Your task to perform on an android device: create a new album in the google photos Image 0: 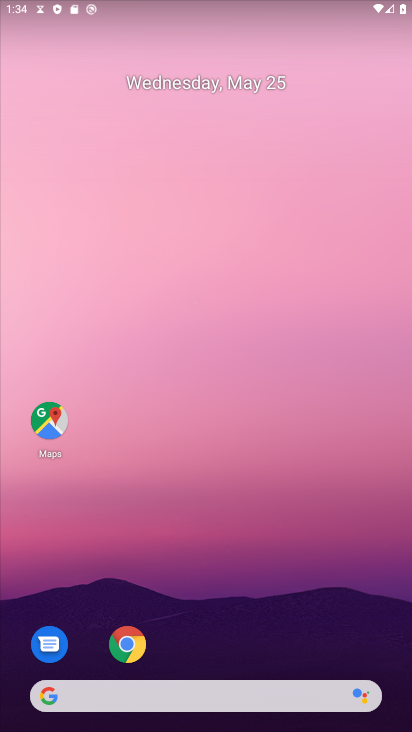
Step 0: drag from (213, 669) to (178, 10)
Your task to perform on an android device: create a new album in the google photos Image 1: 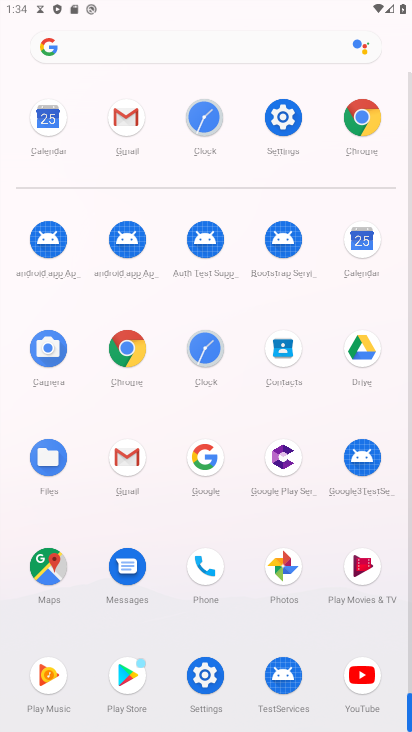
Step 1: click (286, 595)
Your task to perform on an android device: create a new album in the google photos Image 2: 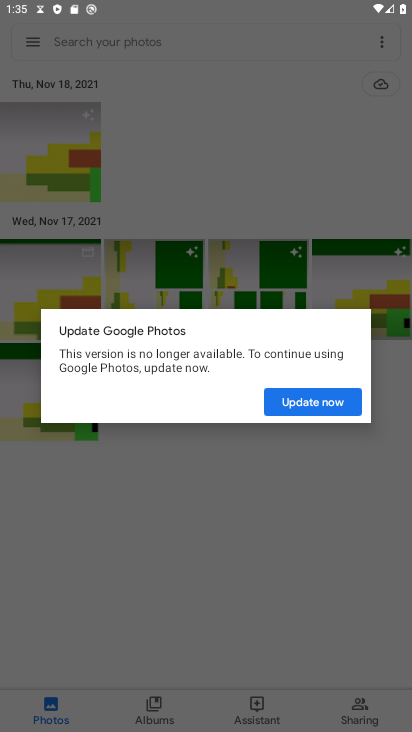
Step 2: click (343, 404)
Your task to perform on an android device: create a new album in the google photos Image 3: 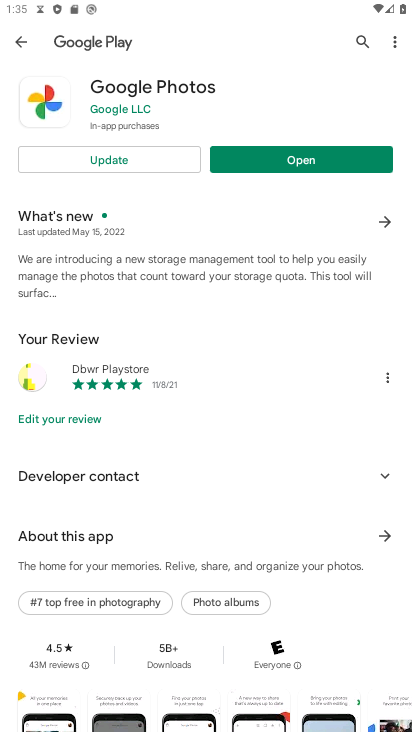
Step 3: click (90, 158)
Your task to perform on an android device: create a new album in the google photos Image 4: 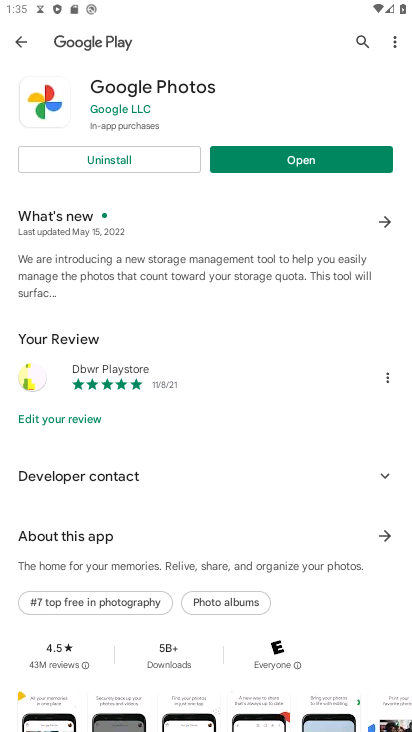
Step 4: click (287, 170)
Your task to perform on an android device: create a new album in the google photos Image 5: 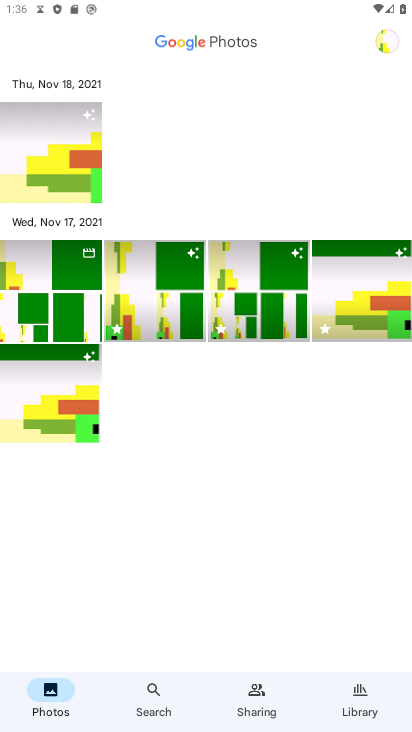
Step 5: click (372, 716)
Your task to perform on an android device: create a new album in the google photos Image 6: 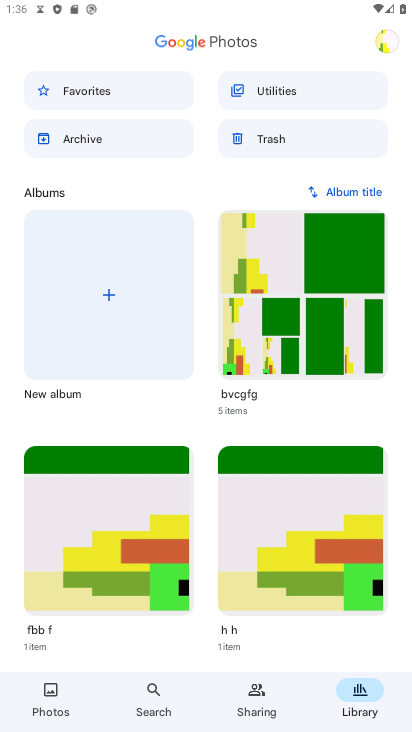
Step 6: click (104, 306)
Your task to perform on an android device: create a new album in the google photos Image 7: 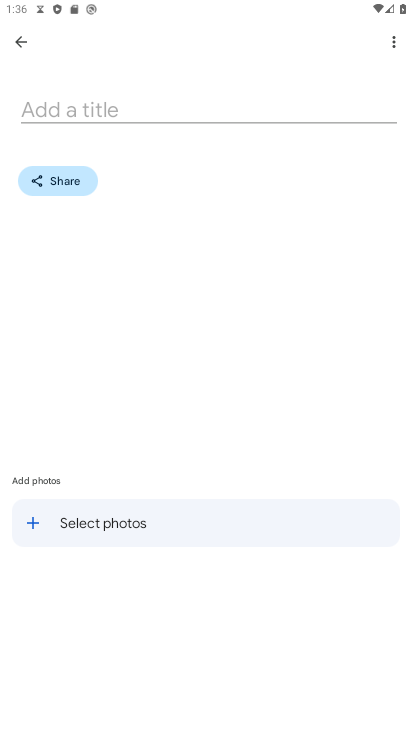
Step 7: click (80, 109)
Your task to perform on an android device: create a new album in the google photos Image 8: 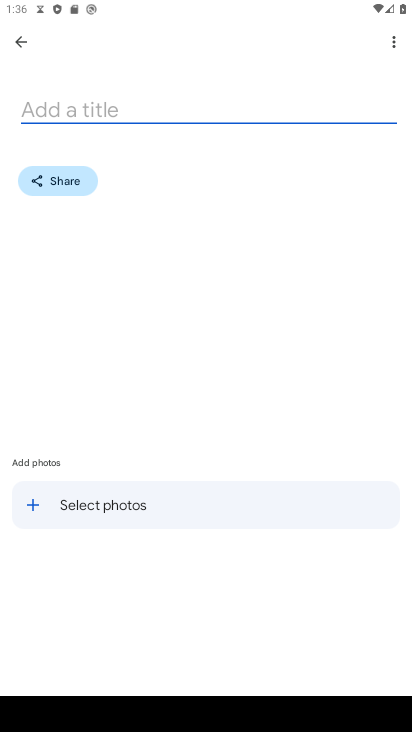
Step 8: type "Anant"
Your task to perform on an android device: create a new album in the google photos Image 9: 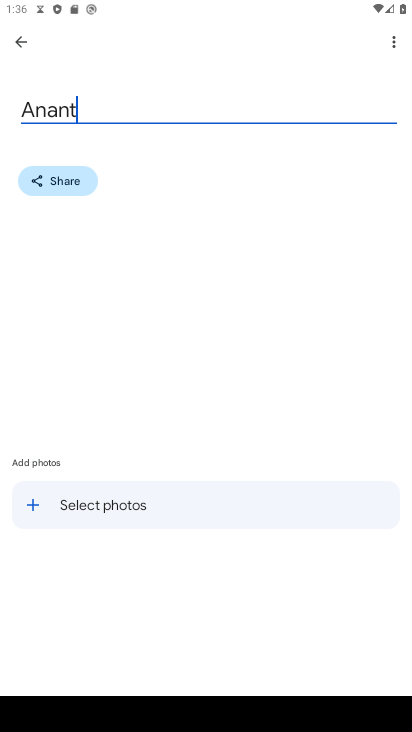
Step 9: click (133, 503)
Your task to perform on an android device: create a new album in the google photos Image 10: 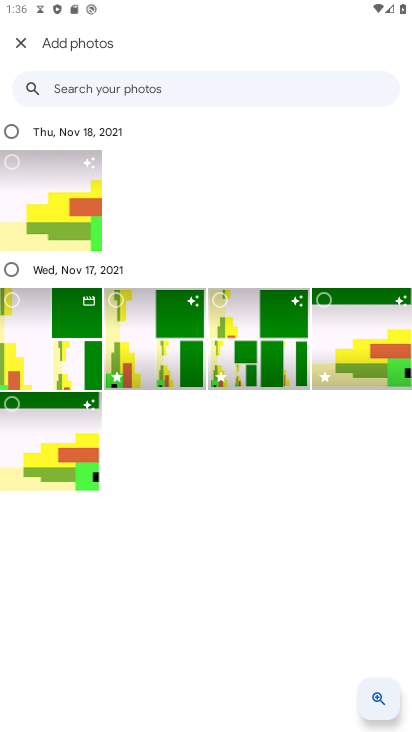
Step 10: click (8, 132)
Your task to perform on an android device: create a new album in the google photos Image 11: 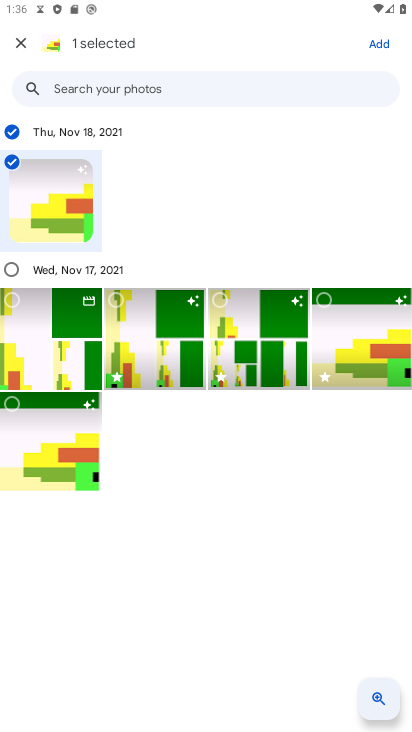
Step 11: click (371, 48)
Your task to perform on an android device: create a new album in the google photos Image 12: 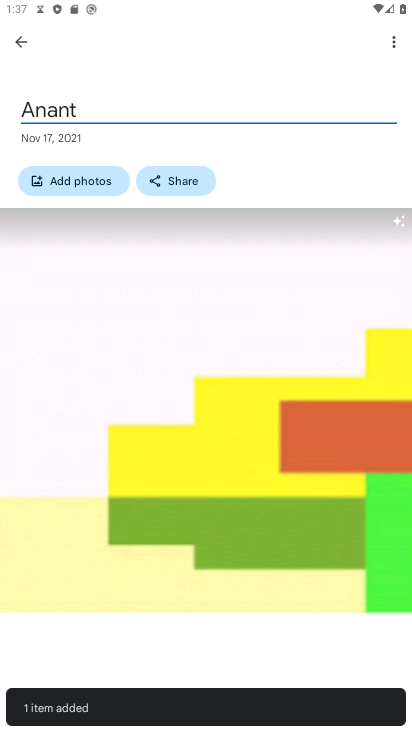
Step 12: task complete